Your task to perform on an android device: star an email in the gmail app Image 0: 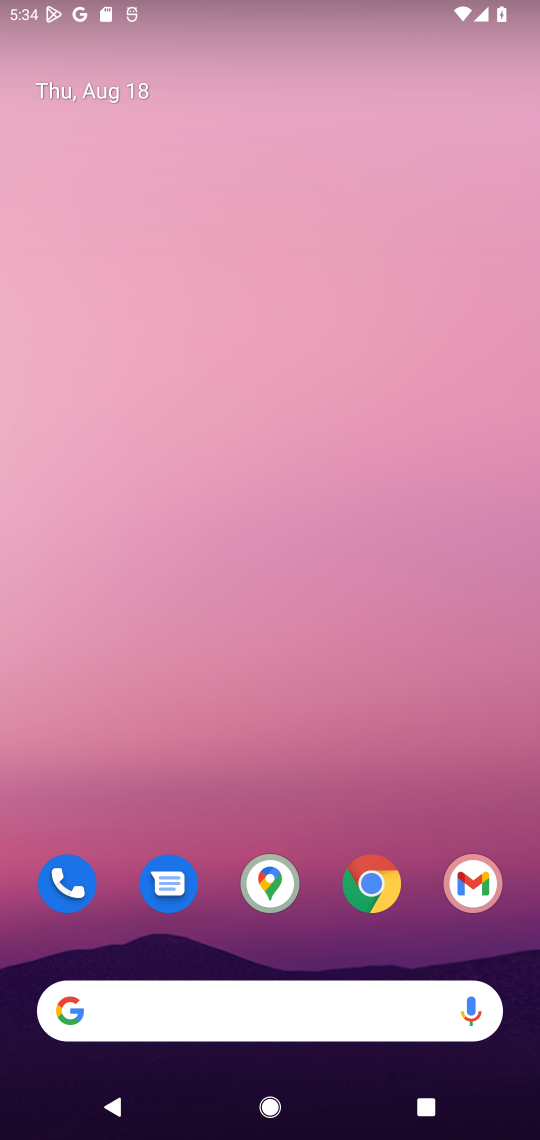
Step 0: drag from (329, 920) to (245, 5)
Your task to perform on an android device: star an email in the gmail app Image 1: 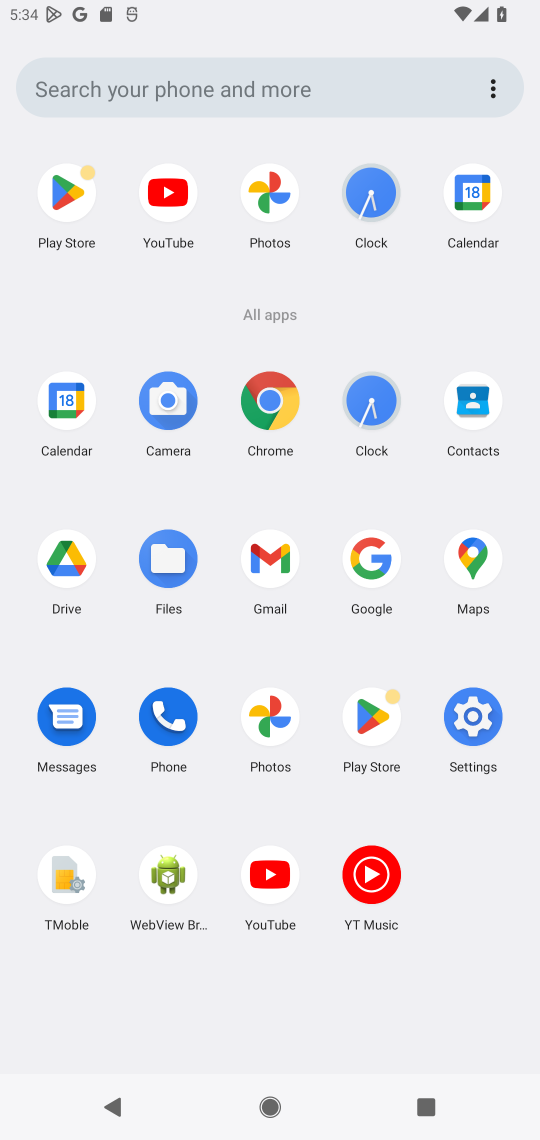
Step 1: click (273, 559)
Your task to perform on an android device: star an email in the gmail app Image 2: 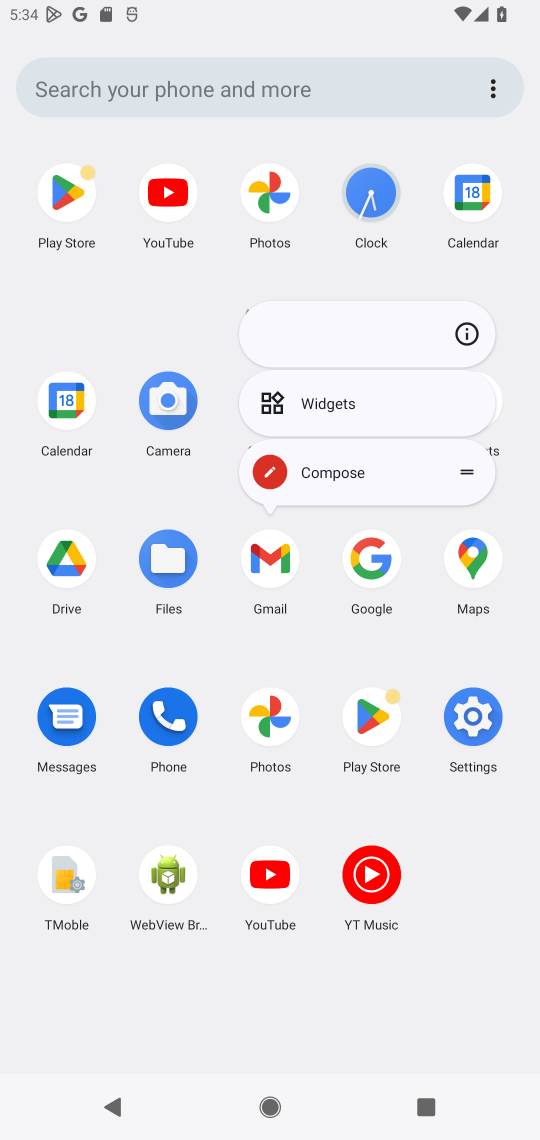
Step 2: click (273, 559)
Your task to perform on an android device: star an email in the gmail app Image 3: 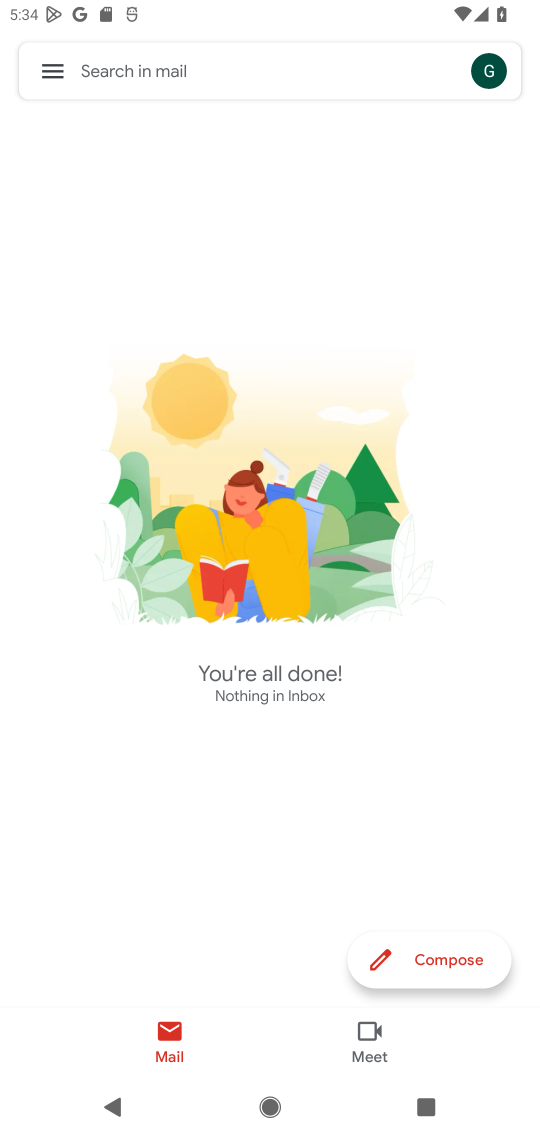
Step 3: click (49, 75)
Your task to perform on an android device: star an email in the gmail app Image 4: 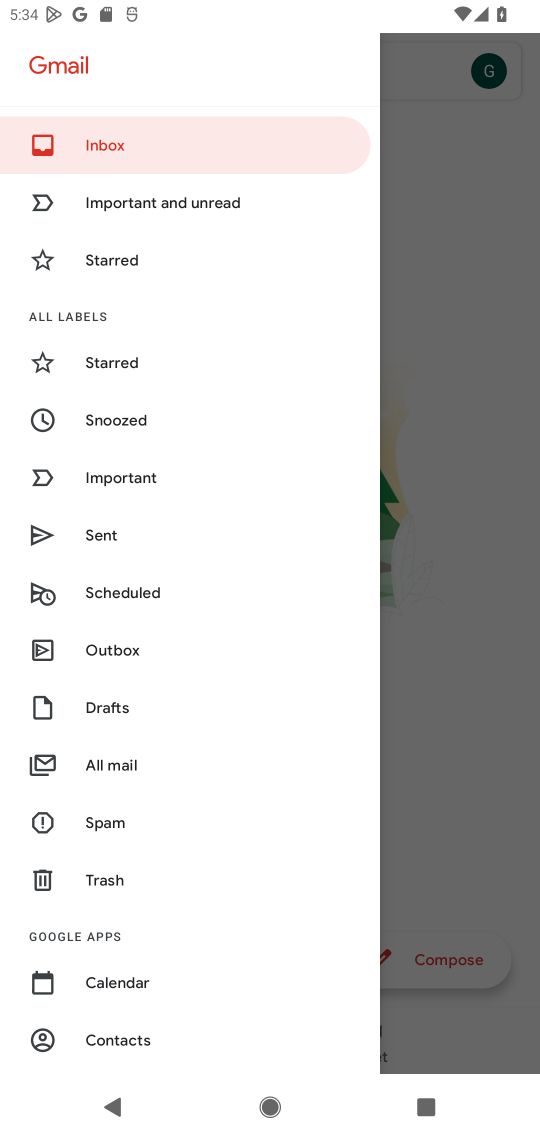
Step 4: click (105, 264)
Your task to perform on an android device: star an email in the gmail app Image 5: 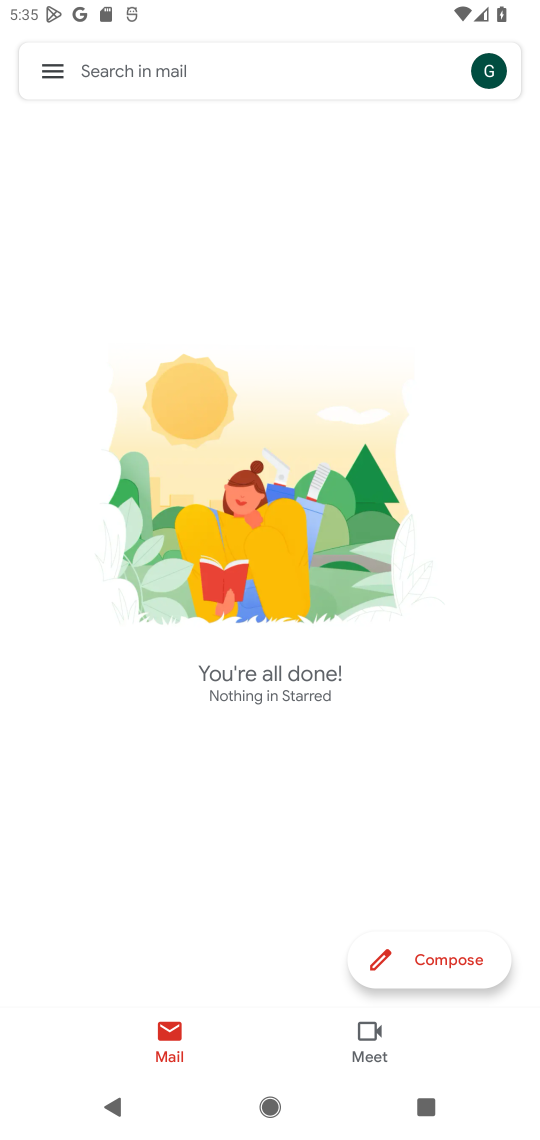
Step 5: press home button
Your task to perform on an android device: star an email in the gmail app Image 6: 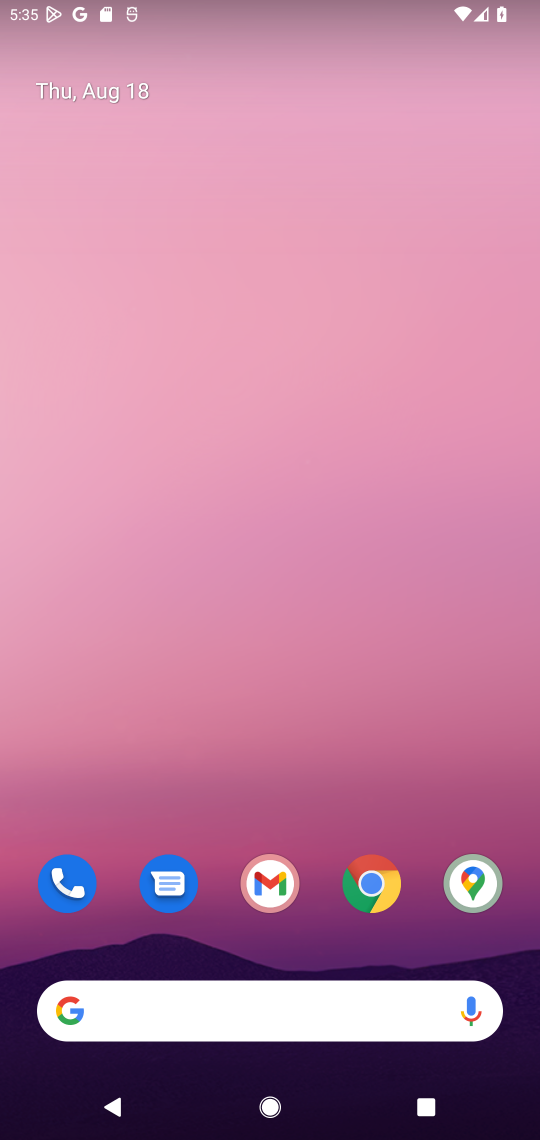
Step 6: drag from (322, 912) to (323, 33)
Your task to perform on an android device: star an email in the gmail app Image 7: 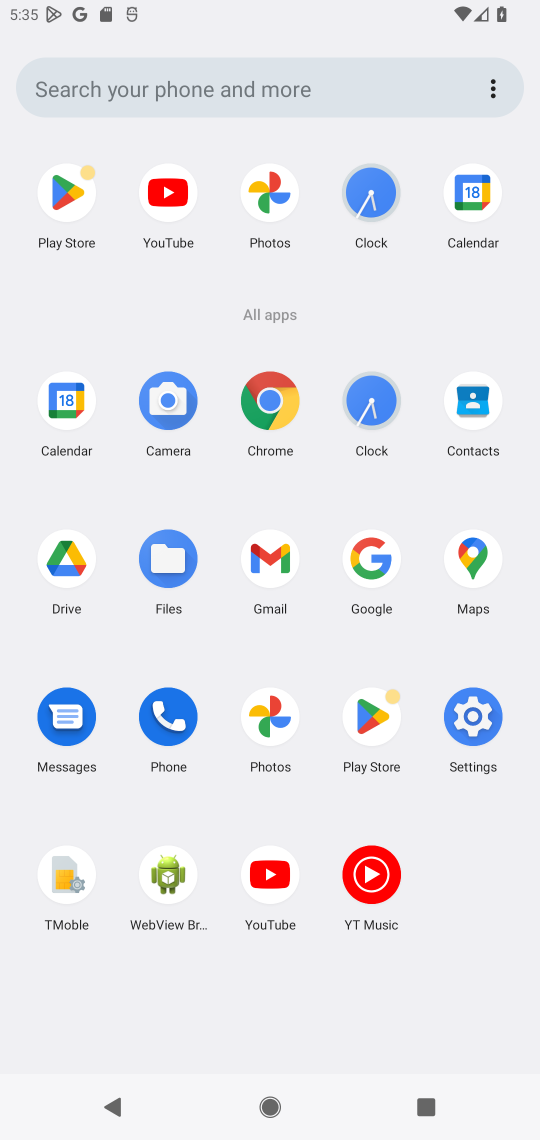
Step 7: click (268, 555)
Your task to perform on an android device: star an email in the gmail app Image 8: 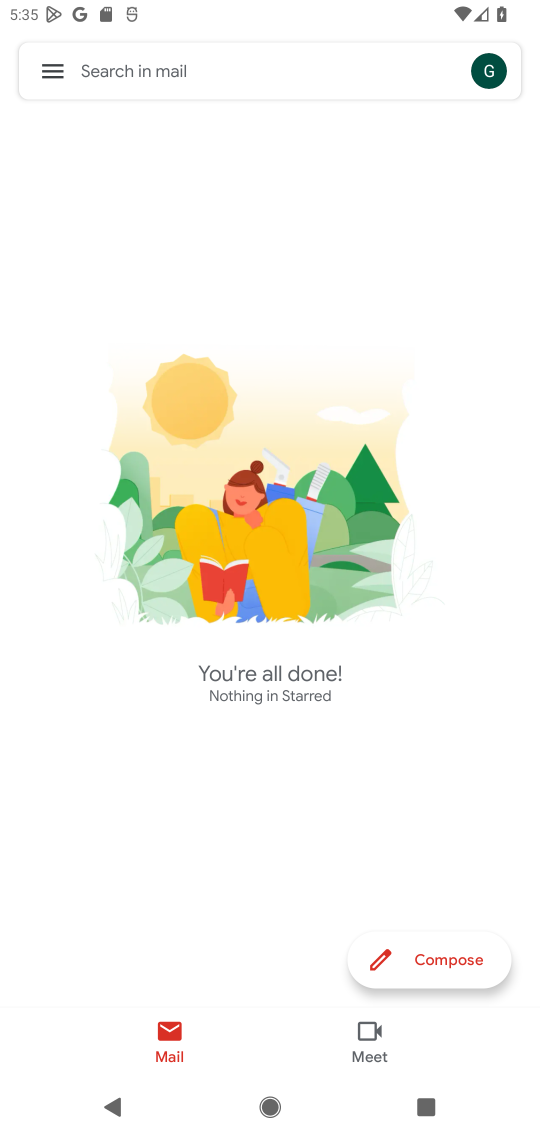
Step 8: click (51, 71)
Your task to perform on an android device: star an email in the gmail app Image 9: 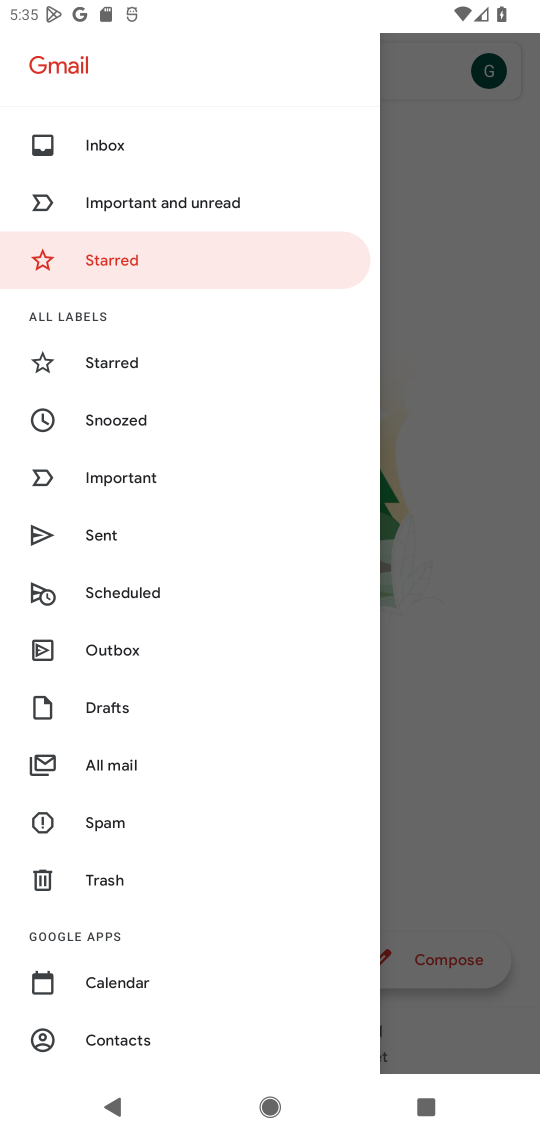
Step 9: task complete